Your task to perform on an android device: change alarm snooze length Image 0: 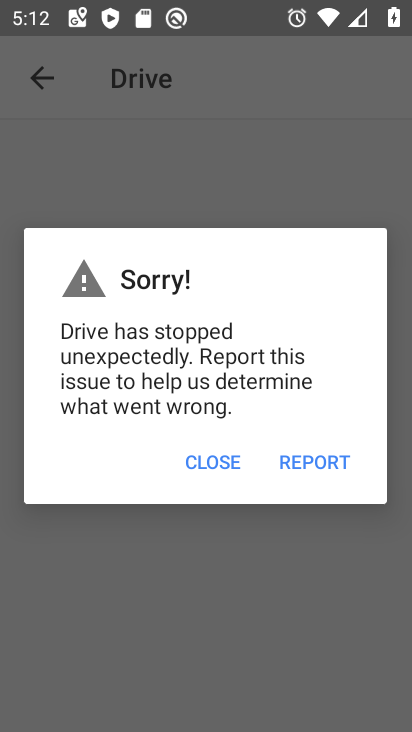
Step 0: click (227, 465)
Your task to perform on an android device: change alarm snooze length Image 1: 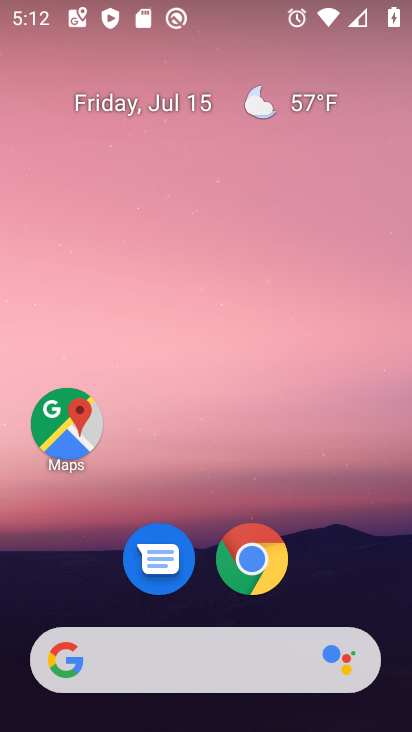
Step 1: drag from (187, 499) to (244, 1)
Your task to perform on an android device: change alarm snooze length Image 2: 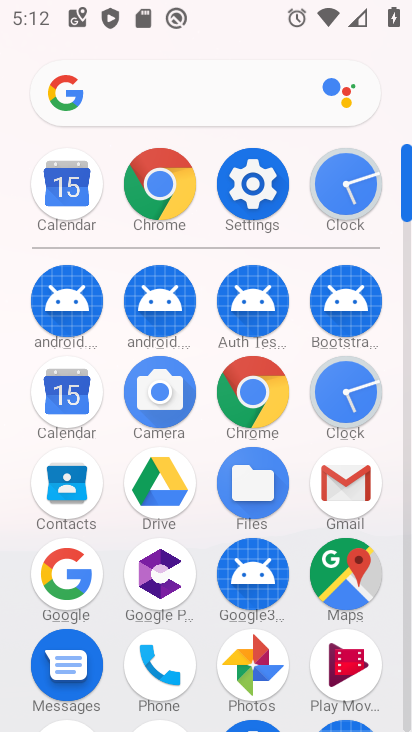
Step 2: click (350, 181)
Your task to perform on an android device: change alarm snooze length Image 3: 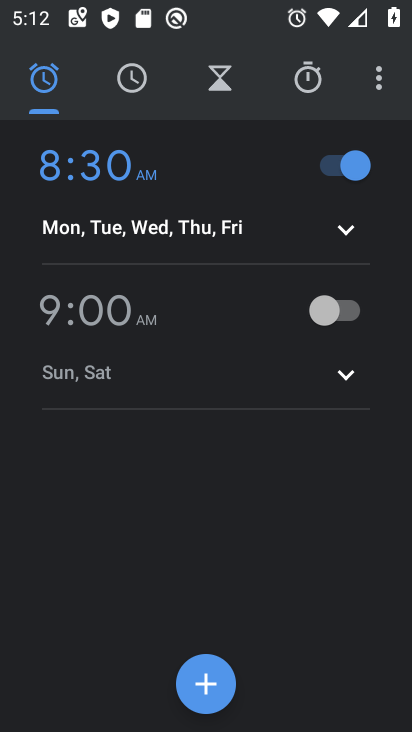
Step 3: click (371, 78)
Your task to perform on an android device: change alarm snooze length Image 4: 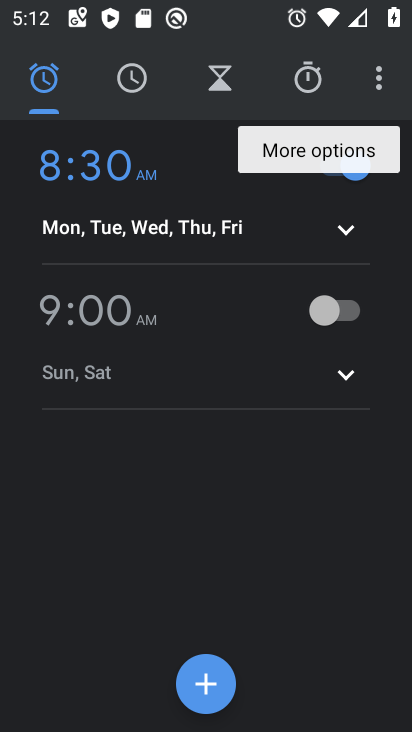
Step 4: click (385, 76)
Your task to perform on an android device: change alarm snooze length Image 5: 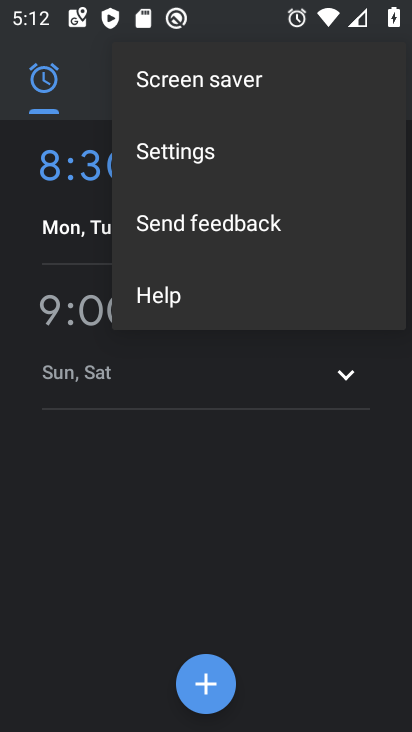
Step 5: click (202, 144)
Your task to perform on an android device: change alarm snooze length Image 6: 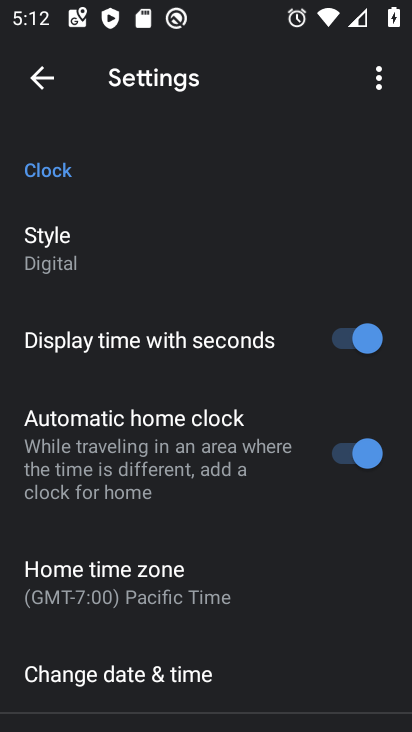
Step 6: drag from (128, 626) to (169, 244)
Your task to perform on an android device: change alarm snooze length Image 7: 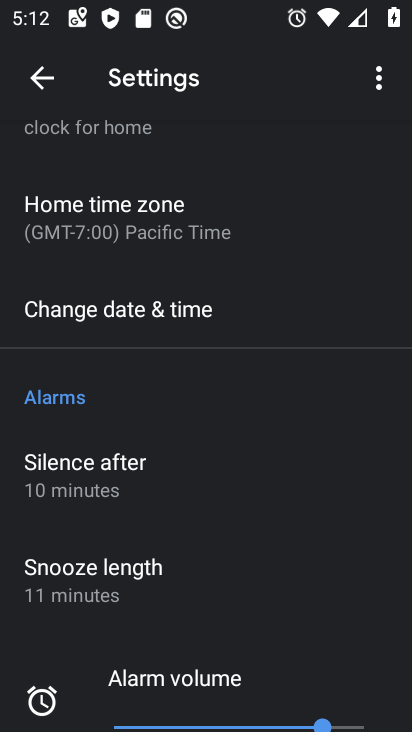
Step 7: click (90, 569)
Your task to perform on an android device: change alarm snooze length Image 8: 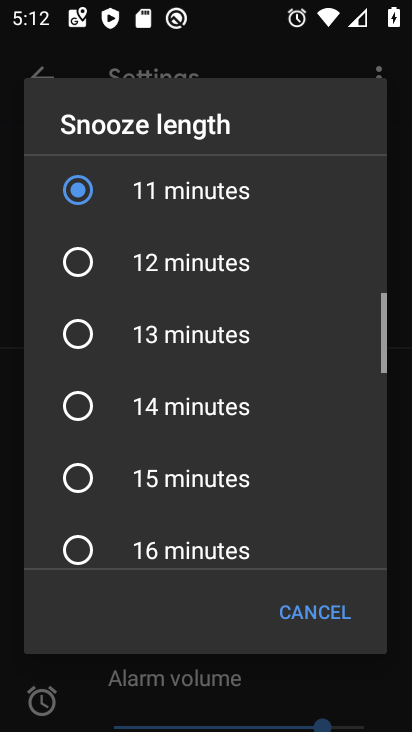
Step 8: click (94, 248)
Your task to perform on an android device: change alarm snooze length Image 9: 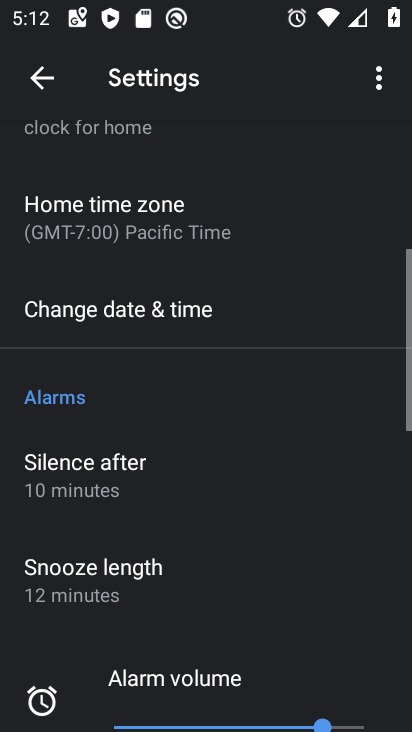
Step 9: task complete